Your task to perform on an android device: read, delete, or share a saved page in the chrome app Image 0: 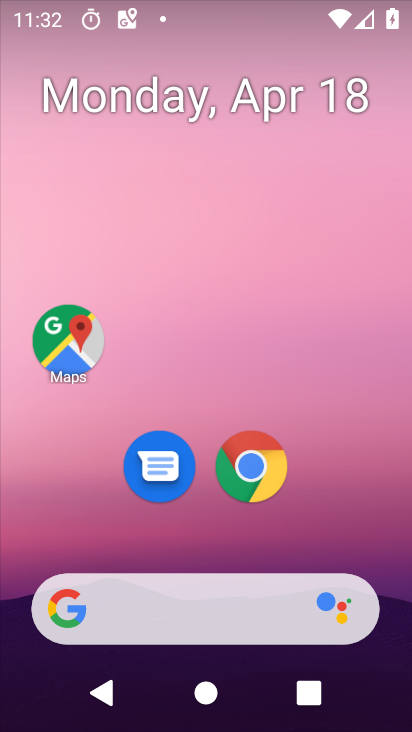
Step 0: click (270, 460)
Your task to perform on an android device: read, delete, or share a saved page in the chrome app Image 1: 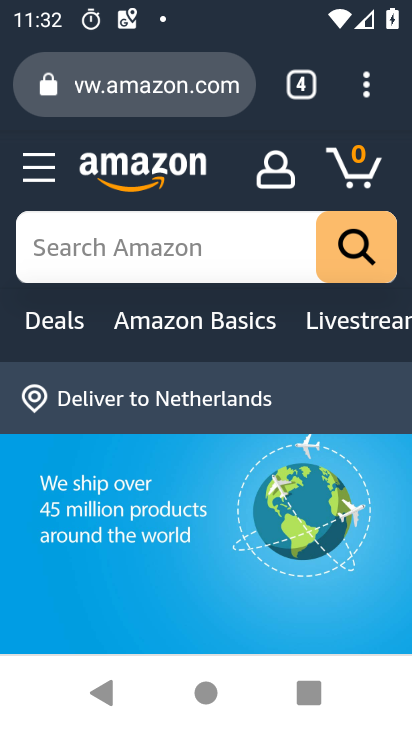
Step 1: click (361, 97)
Your task to perform on an android device: read, delete, or share a saved page in the chrome app Image 2: 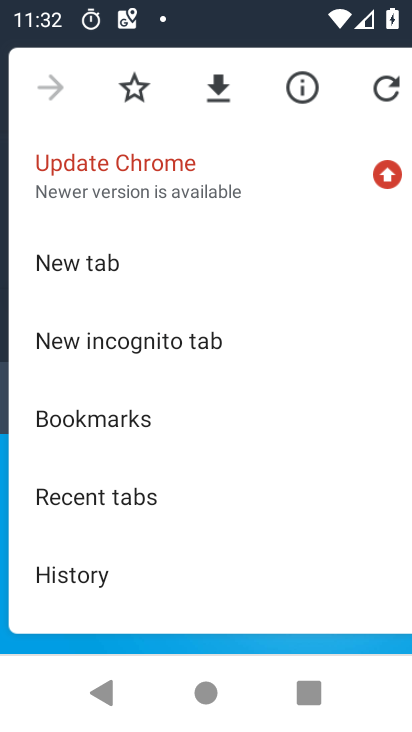
Step 2: drag from (247, 535) to (262, 263)
Your task to perform on an android device: read, delete, or share a saved page in the chrome app Image 3: 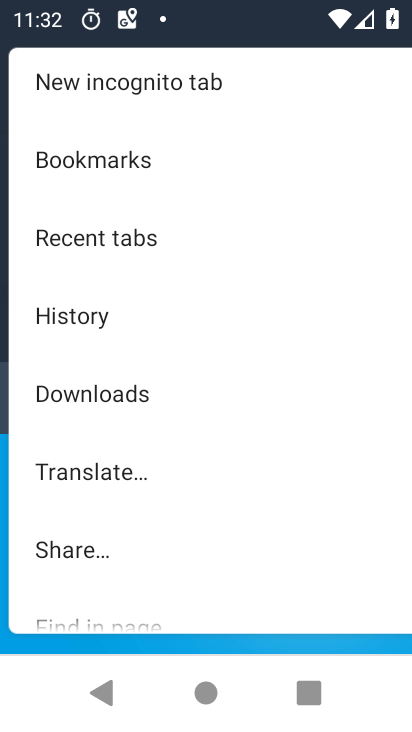
Step 3: drag from (250, 534) to (206, 275)
Your task to perform on an android device: read, delete, or share a saved page in the chrome app Image 4: 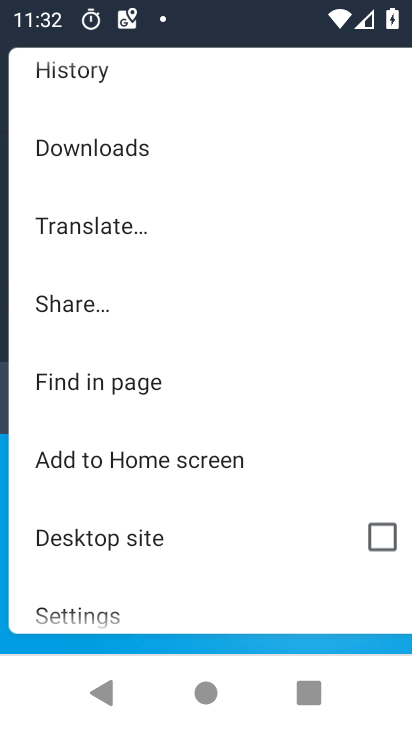
Step 4: drag from (201, 553) to (150, 220)
Your task to perform on an android device: read, delete, or share a saved page in the chrome app Image 5: 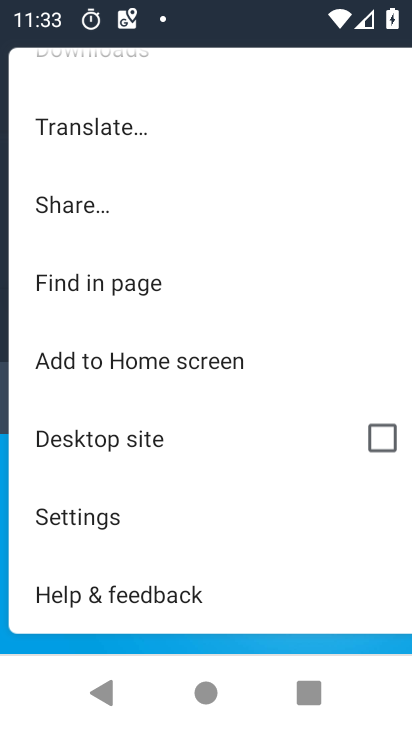
Step 5: drag from (151, 267) to (168, 437)
Your task to perform on an android device: read, delete, or share a saved page in the chrome app Image 6: 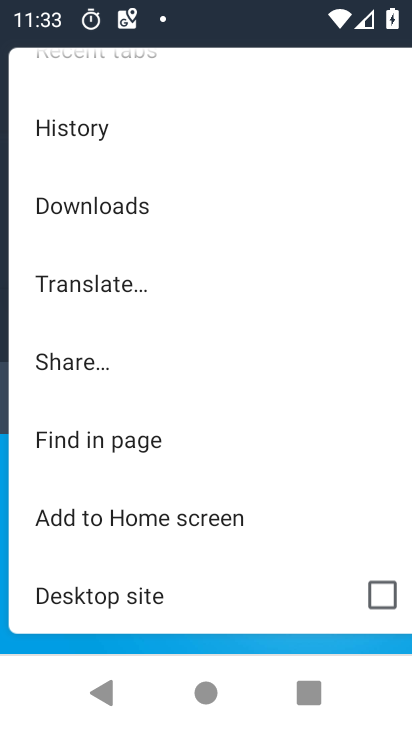
Step 6: drag from (172, 116) to (176, 571)
Your task to perform on an android device: read, delete, or share a saved page in the chrome app Image 7: 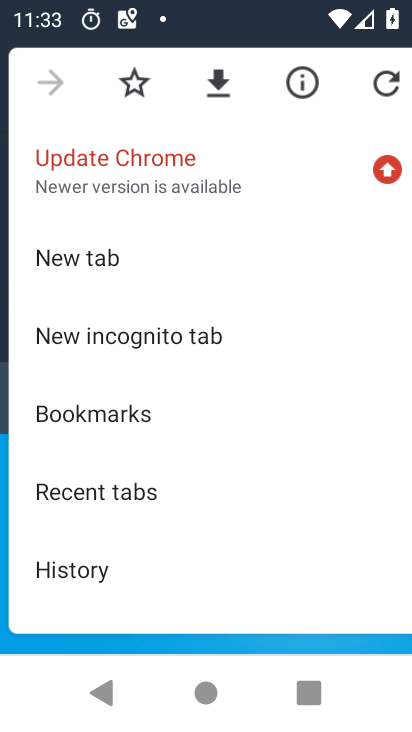
Step 7: drag from (148, 545) to (154, 379)
Your task to perform on an android device: read, delete, or share a saved page in the chrome app Image 8: 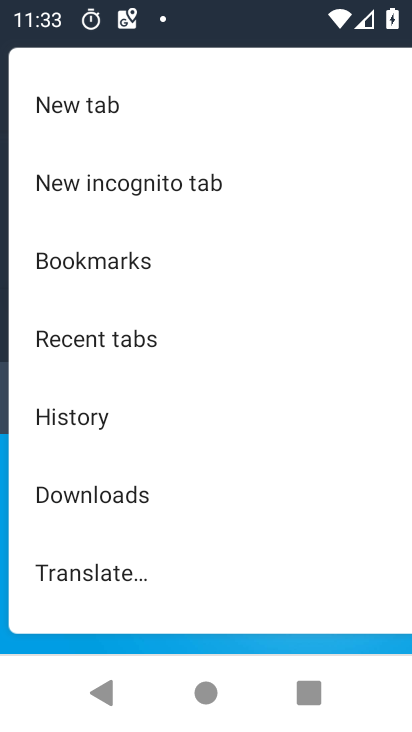
Step 8: click (175, 508)
Your task to perform on an android device: read, delete, or share a saved page in the chrome app Image 9: 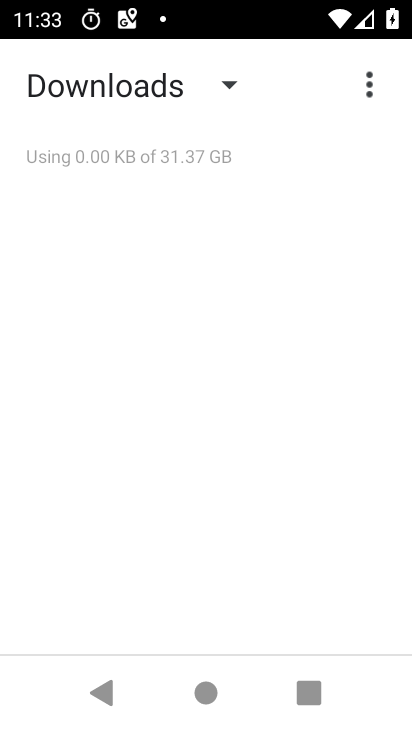
Step 9: click (220, 85)
Your task to perform on an android device: read, delete, or share a saved page in the chrome app Image 10: 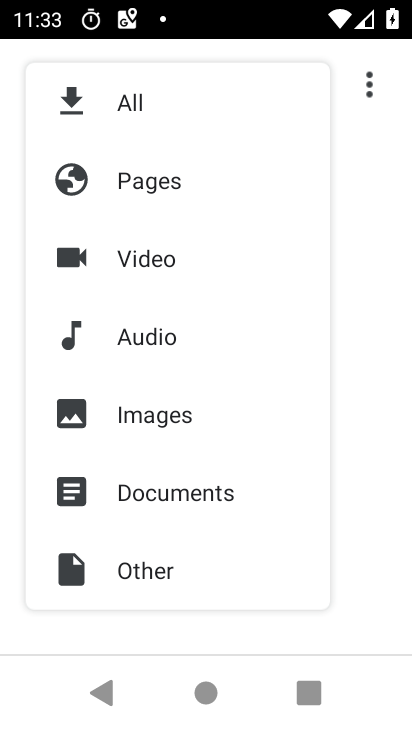
Step 10: click (160, 190)
Your task to perform on an android device: read, delete, or share a saved page in the chrome app Image 11: 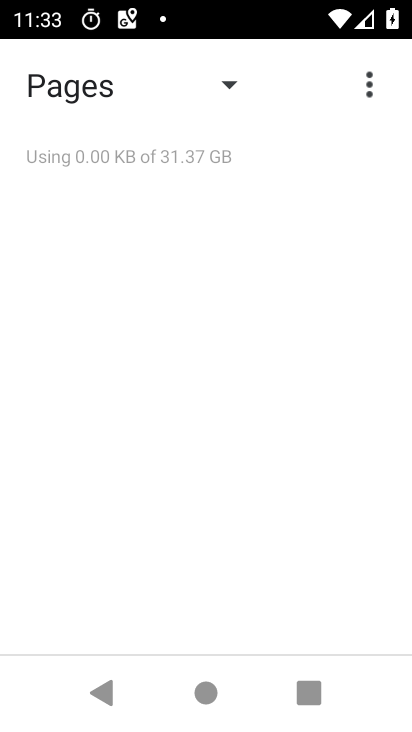
Step 11: task complete